Your task to perform on an android device: turn on showing notifications on the lock screen Image 0: 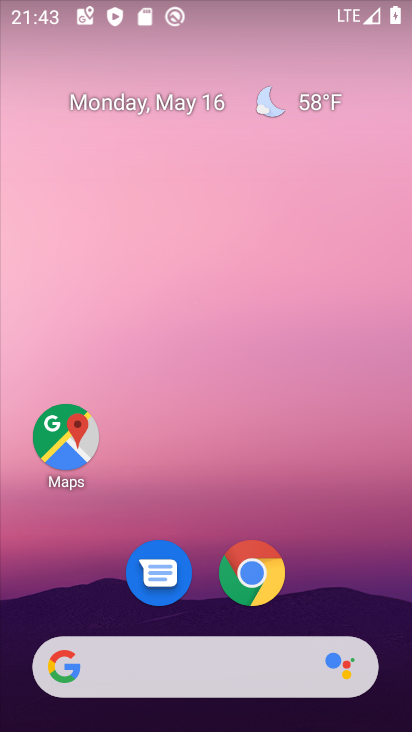
Step 0: drag from (203, 725) to (206, 116)
Your task to perform on an android device: turn on showing notifications on the lock screen Image 1: 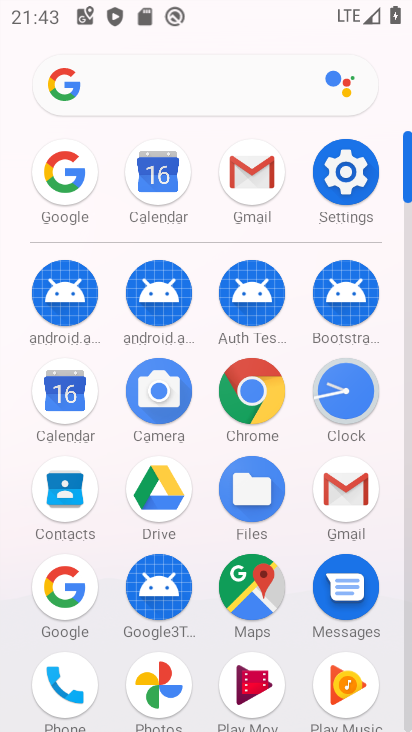
Step 1: click (347, 176)
Your task to perform on an android device: turn on showing notifications on the lock screen Image 2: 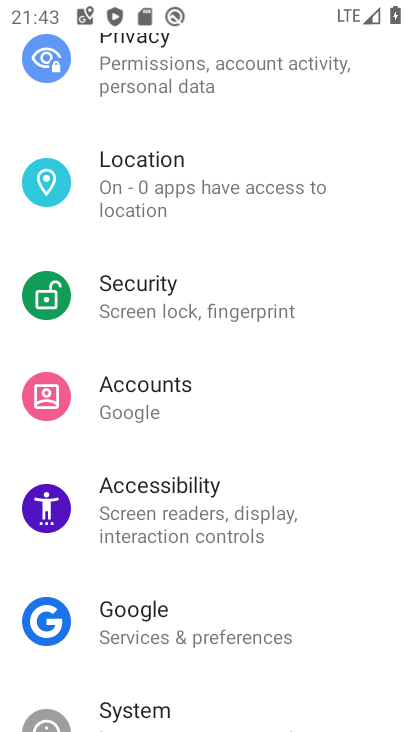
Step 2: drag from (166, 171) to (162, 411)
Your task to perform on an android device: turn on showing notifications on the lock screen Image 3: 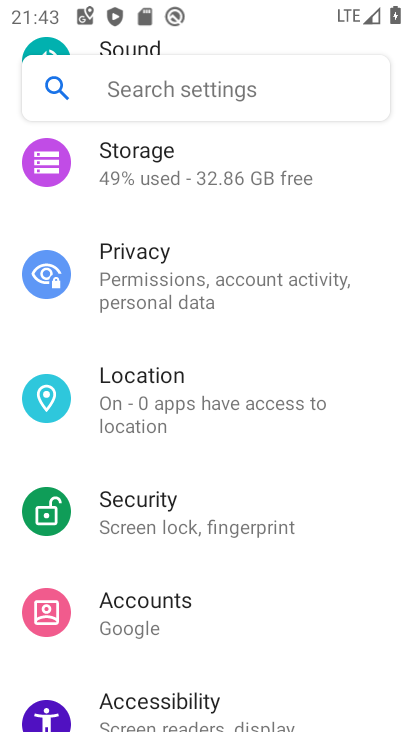
Step 3: drag from (169, 226) to (182, 559)
Your task to perform on an android device: turn on showing notifications on the lock screen Image 4: 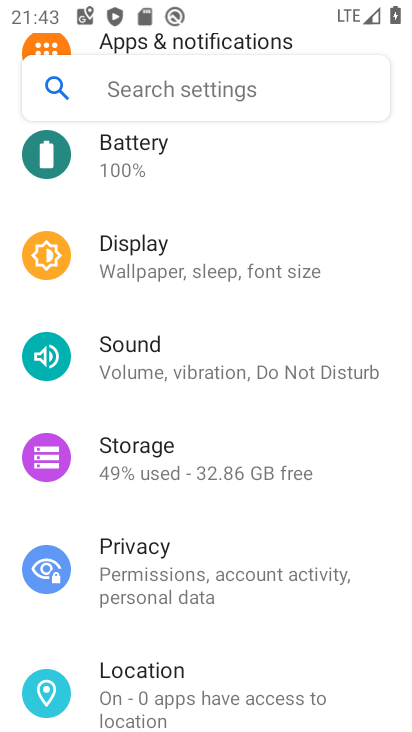
Step 4: drag from (186, 199) to (183, 522)
Your task to perform on an android device: turn on showing notifications on the lock screen Image 5: 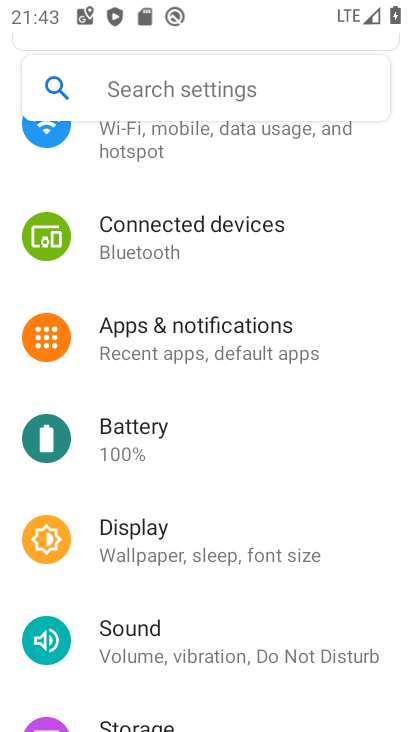
Step 5: drag from (164, 219) to (171, 521)
Your task to perform on an android device: turn on showing notifications on the lock screen Image 6: 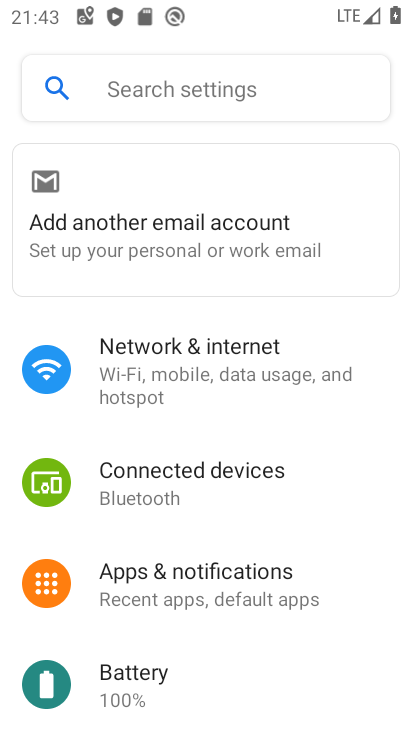
Step 6: click (164, 566)
Your task to perform on an android device: turn on showing notifications on the lock screen Image 7: 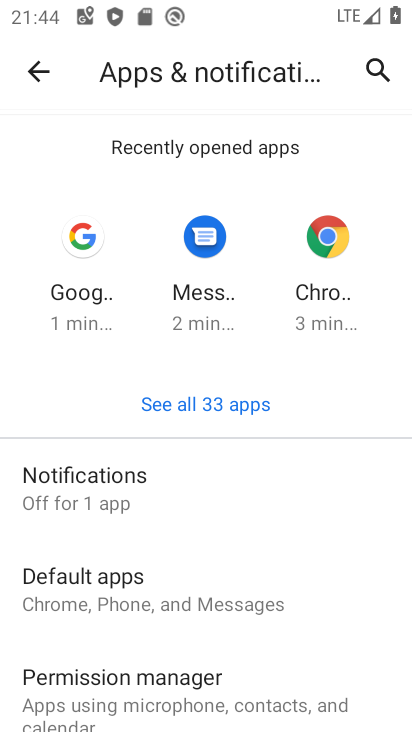
Step 7: click (93, 497)
Your task to perform on an android device: turn on showing notifications on the lock screen Image 8: 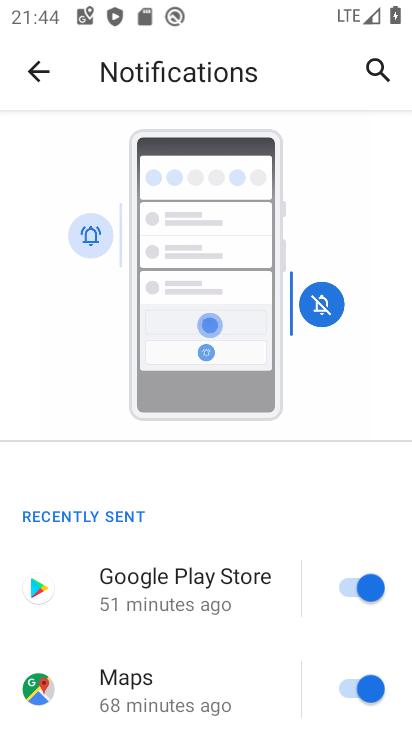
Step 8: task complete